Your task to perform on an android device: turn off priority inbox in the gmail app Image 0: 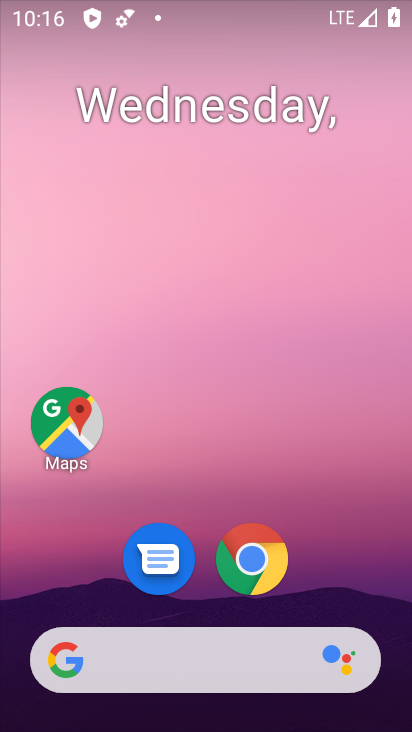
Step 0: drag from (352, 502) to (342, 22)
Your task to perform on an android device: turn off priority inbox in the gmail app Image 1: 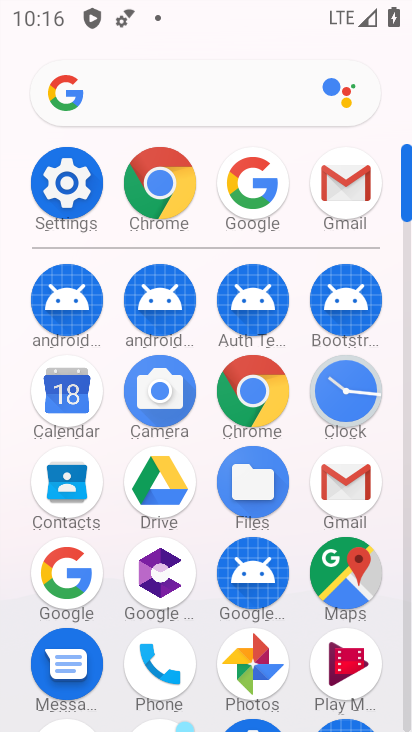
Step 1: click (359, 469)
Your task to perform on an android device: turn off priority inbox in the gmail app Image 2: 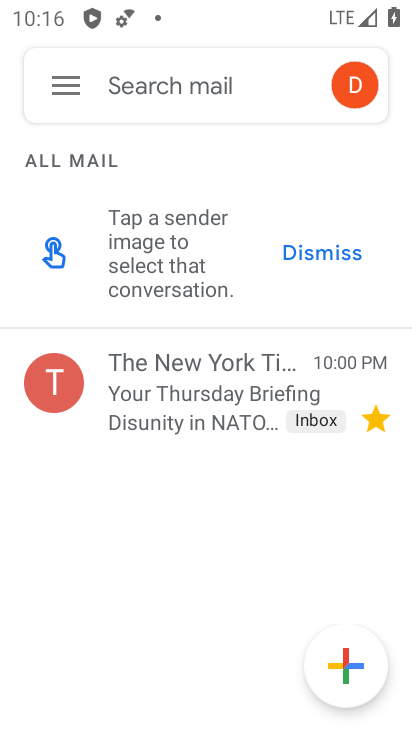
Step 2: click (74, 85)
Your task to perform on an android device: turn off priority inbox in the gmail app Image 3: 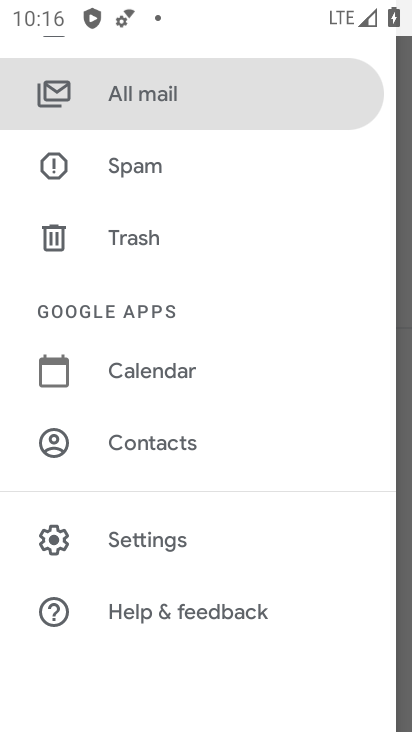
Step 3: click (112, 563)
Your task to perform on an android device: turn off priority inbox in the gmail app Image 4: 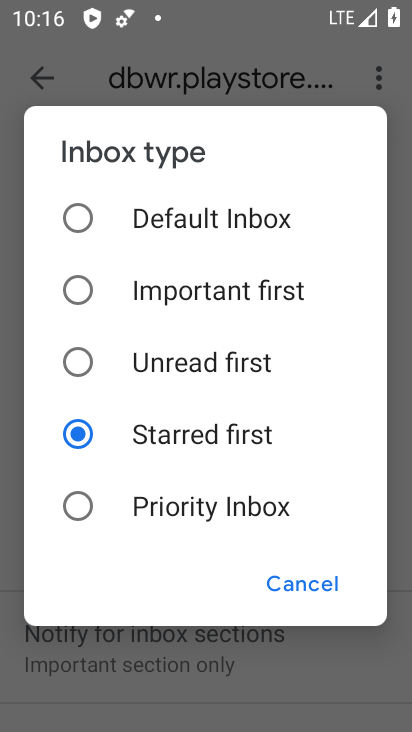
Step 4: task complete